Your task to perform on an android device: change the clock display to show seconds Image 0: 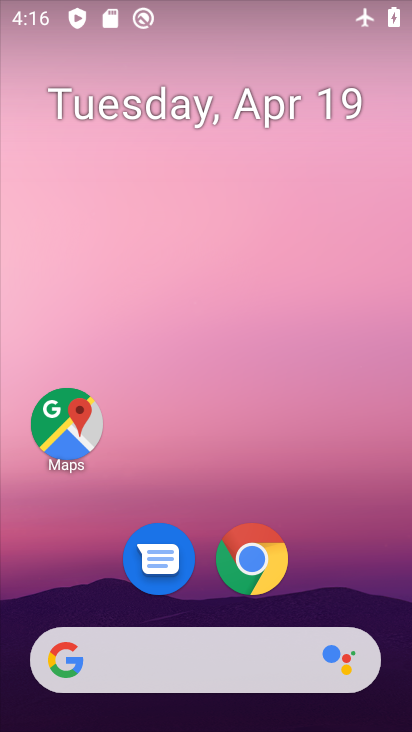
Step 0: drag from (363, 579) to (313, 53)
Your task to perform on an android device: change the clock display to show seconds Image 1: 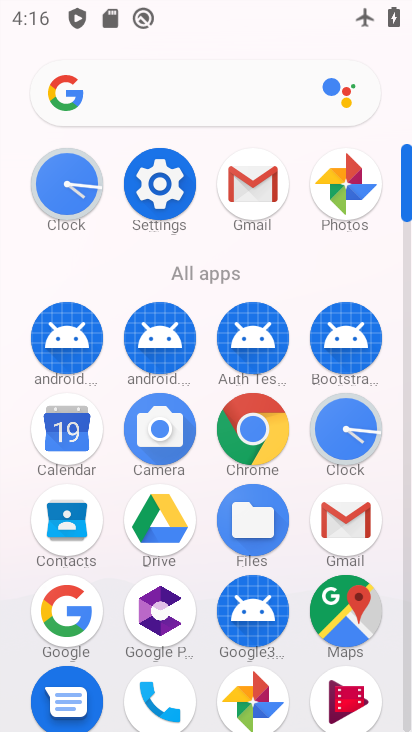
Step 1: click (45, 197)
Your task to perform on an android device: change the clock display to show seconds Image 2: 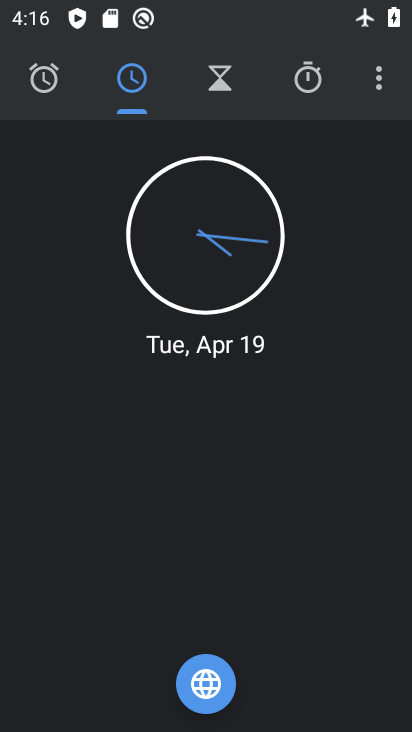
Step 2: click (386, 68)
Your task to perform on an android device: change the clock display to show seconds Image 3: 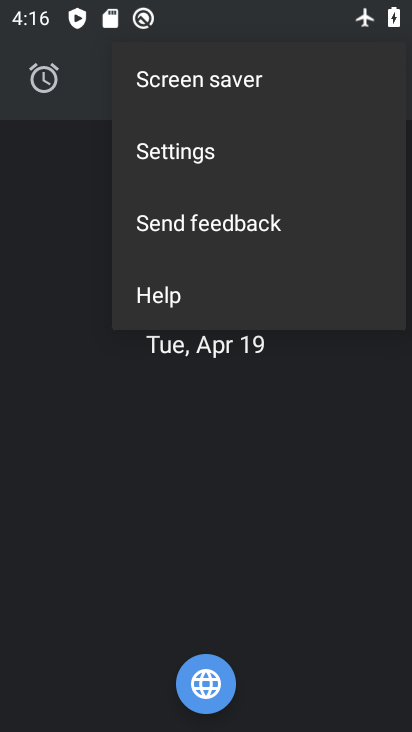
Step 3: click (316, 157)
Your task to perform on an android device: change the clock display to show seconds Image 4: 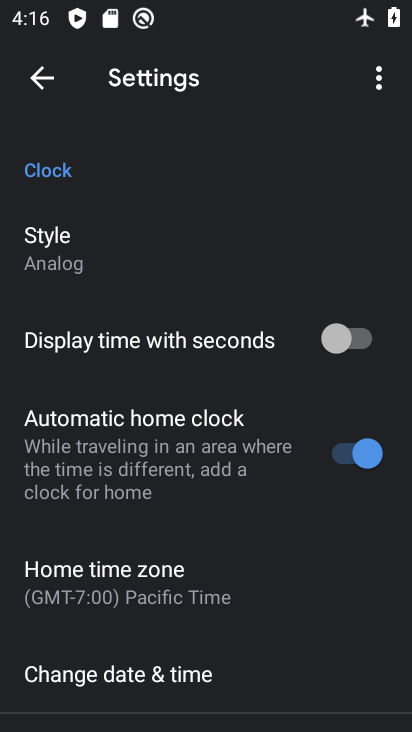
Step 4: click (352, 354)
Your task to perform on an android device: change the clock display to show seconds Image 5: 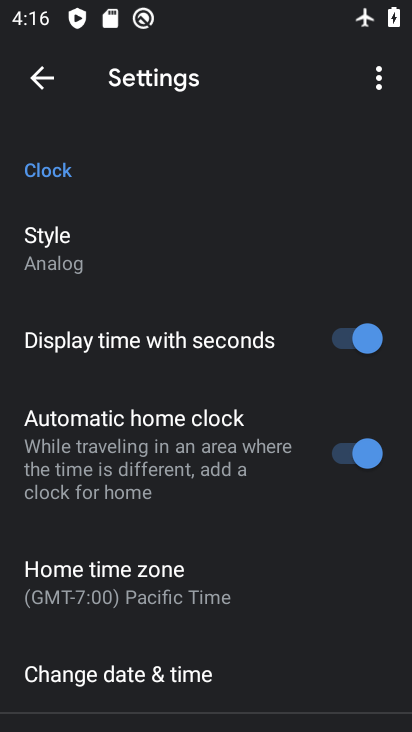
Step 5: task complete